Your task to perform on an android device: Open settings on Google Maps Image 0: 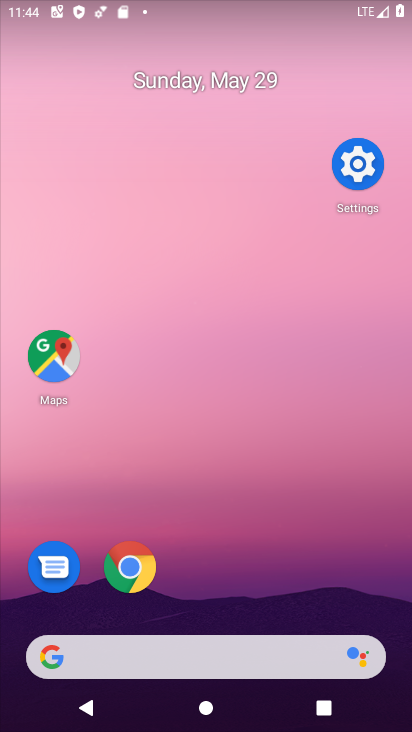
Step 0: drag from (288, 480) to (263, 233)
Your task to perform on an android device: Open settings on Google Maps Image 1: 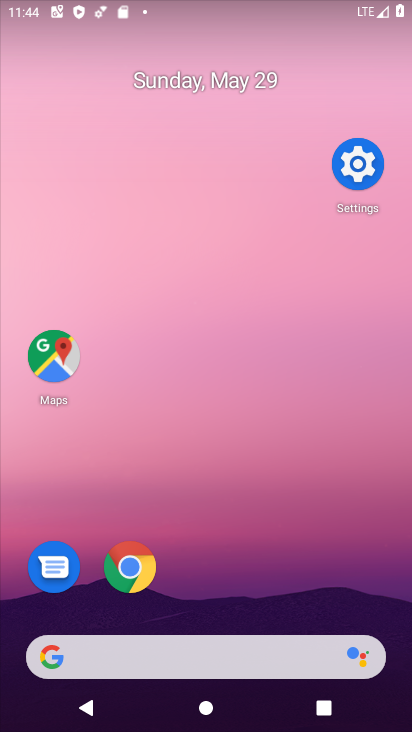
Step 1: click (61, 362)
Your task to perform on an android device: Open settings on Google Maps Image 2: 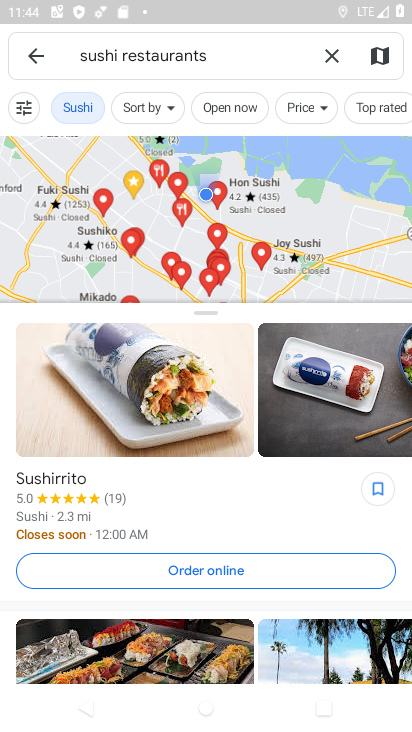
Step 2: click (329, 52)
Your task to perform on an android device: Open settings on Google Maps Image 3: 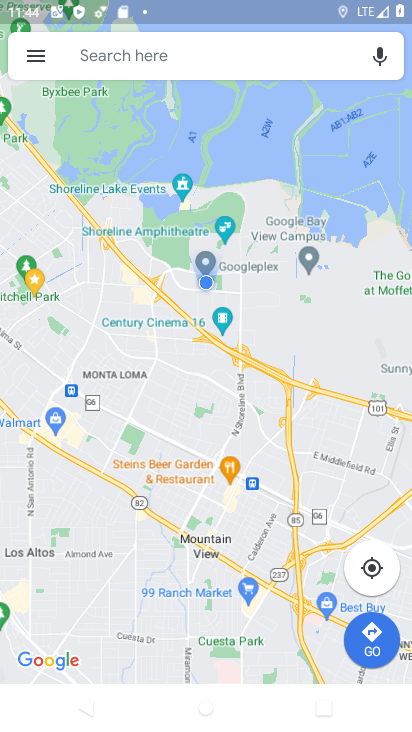
Step 3: click (28, 58)
Your task to perform on an android device: Open settings on Google Maps Image 4: 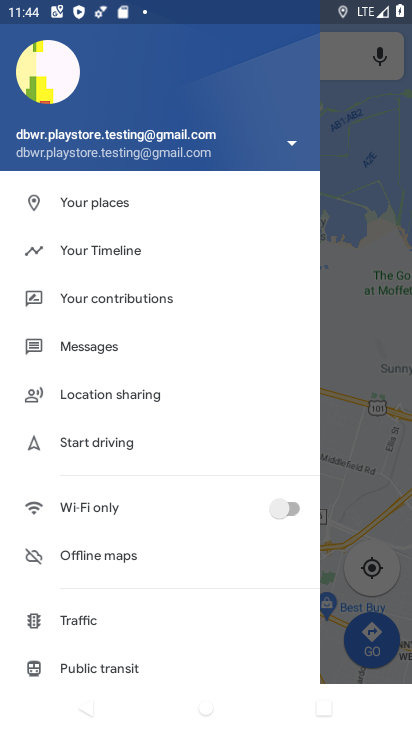
Step 4: click (133, 250)
Your task to perform on an android device: Open settings on Google Maps Image 5: 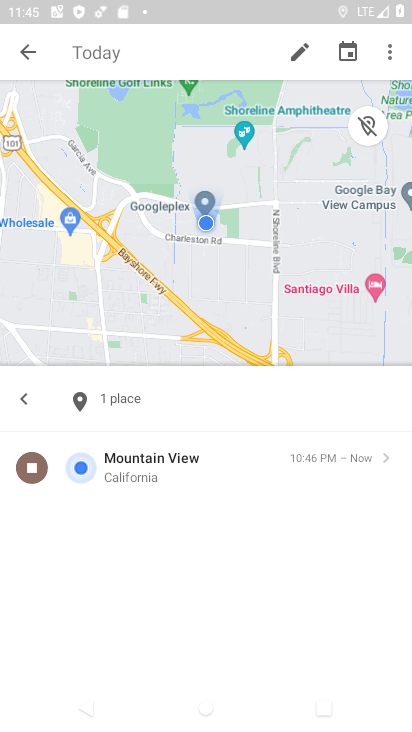
Step 5: task complete